Your task to perform on an android device: turn notification dots off Image 0: 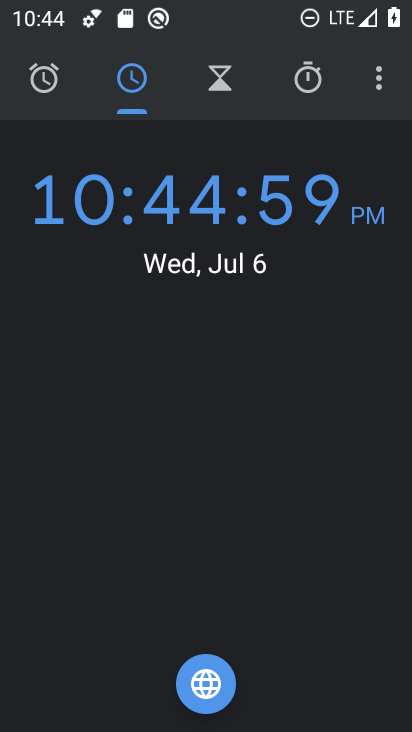
Step 0: press home button
Your task to perform on an android device: turn notification dots off Image 1: 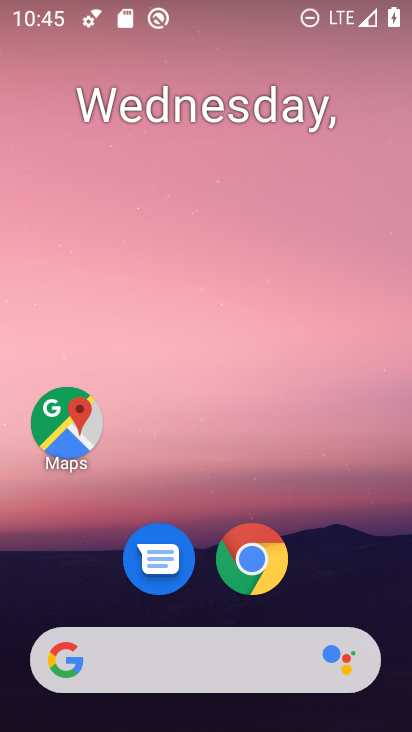
Step 1: drag from (376, 577) to (368, 140)
Your task to perform on an android device: turn notification dots off Image 2: 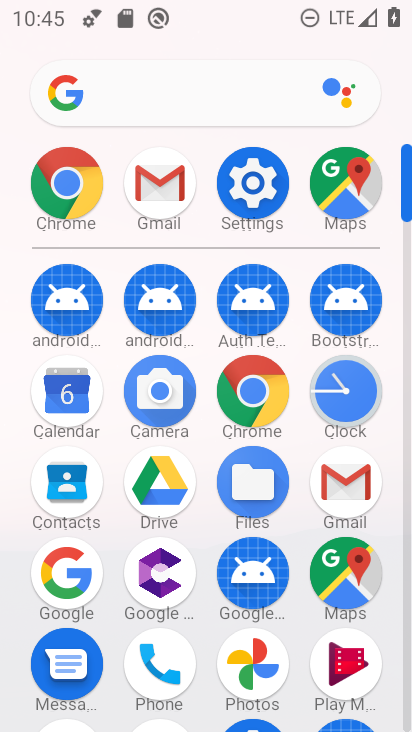
Step 2: click (258, 197)
Your task to perform on an android device: turn notification dots off Image 3: 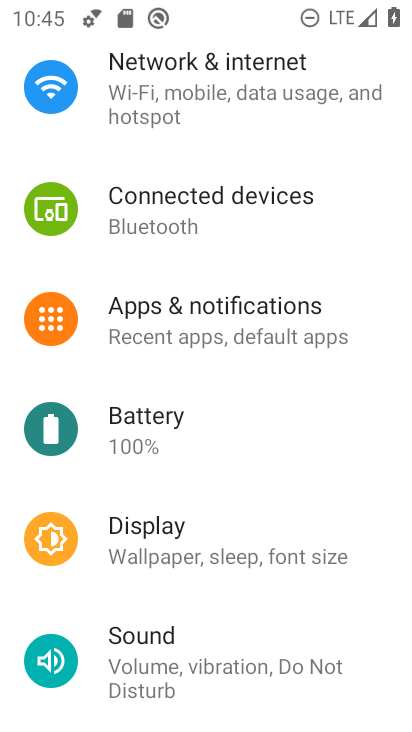
Step 3: click (234, 313)
Your task to perform on an android device: turn notification dots off Image 4: 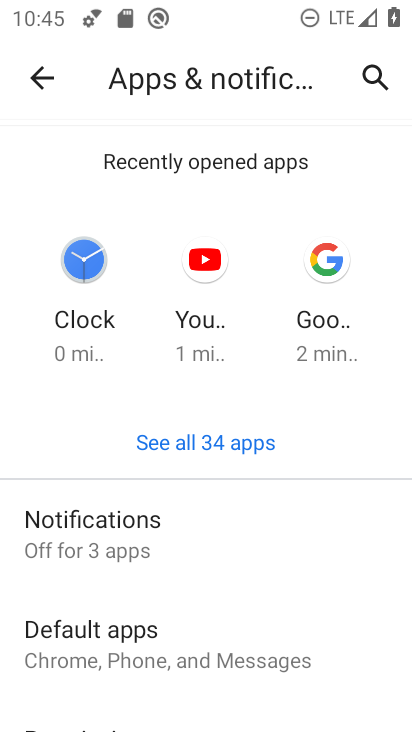
Step 4: click (131, 530)
Your task to perform on an android device: turn notification dots off Image 5: 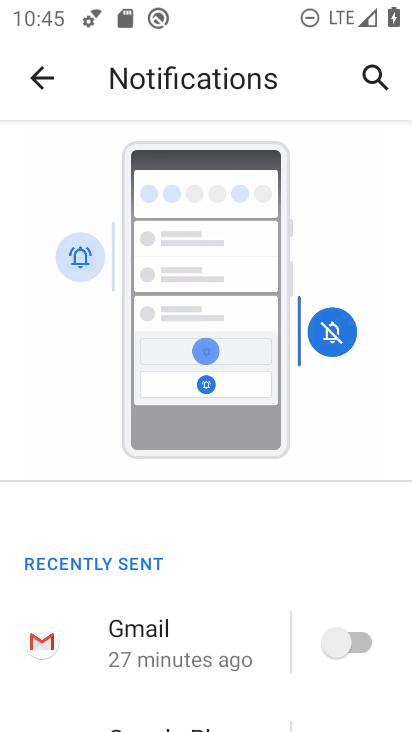
Step 5: drag from (369, 534) to (371, 422)
Your task to perform on an android device: turn notification dots off Image 6: 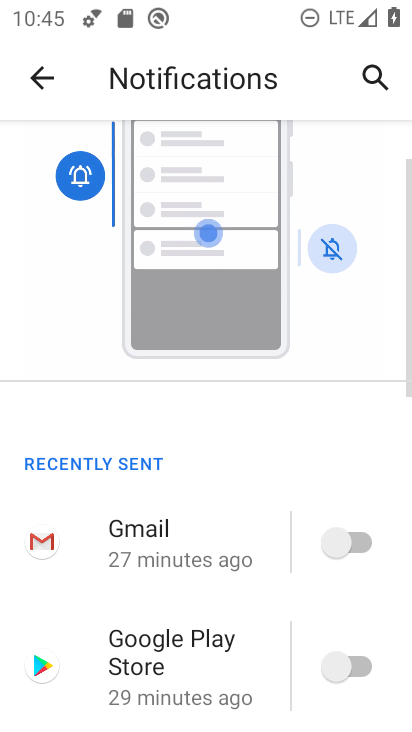
Step 6: drag from (380, 597) to (383, 419)
Your task to perform on an android device: turn notification dots off Image 7: 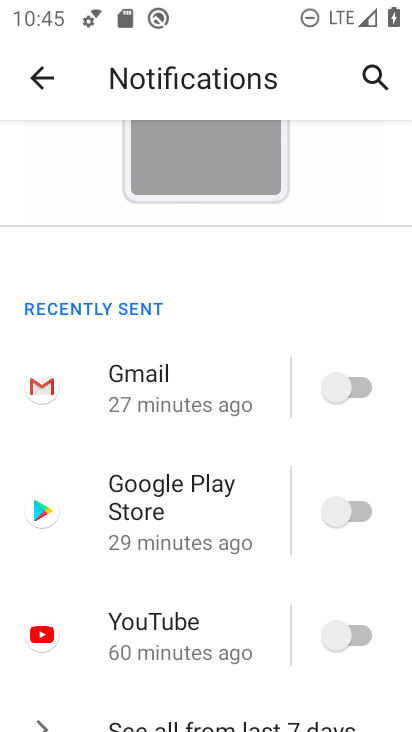
Step 7: drag from (384, 576) to (390, 436)
Your task to perform on an android device: turn notification dots off Image 8: 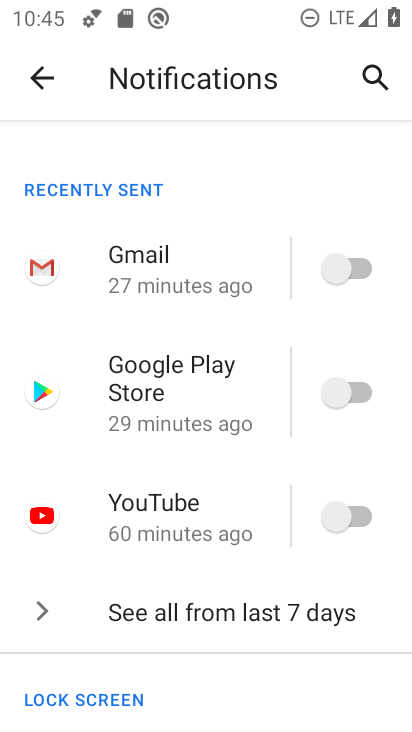
Step 8: drag from (385, 432) to (383, 331)
Your task to perform on an android device: turn notification dots off Image 9: 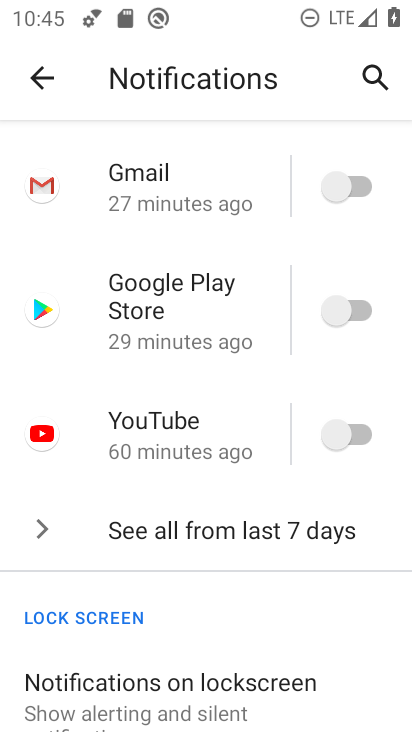
Step 9: drag from (375, 630) to (388, 480)
Your task to perform on an android device: turn notification dots off Image 10: 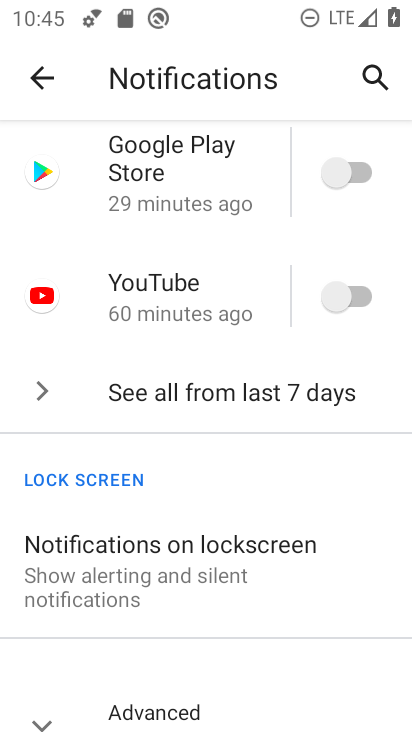
Step 10: drag from (341, 634) to (345, 449)
Your task to perform on an android device: turn notification dots off Image 11: 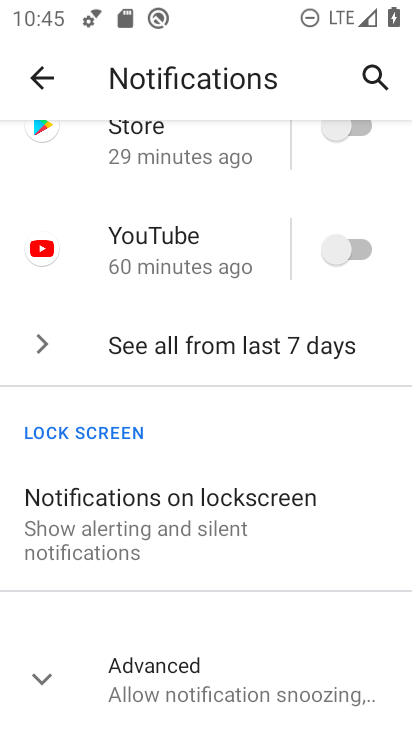
Step 11: click (246, 683)
Your task to perform on an android device: turn notification dots off Image 12: 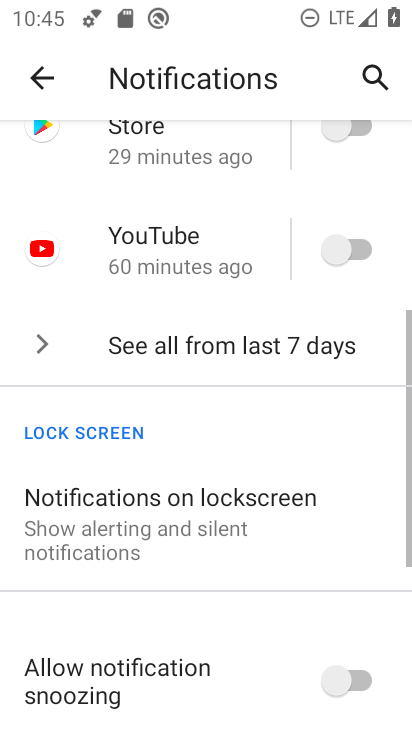
Step 12: task complete